Your task to perform on an android device: Open sound settings Image 0: 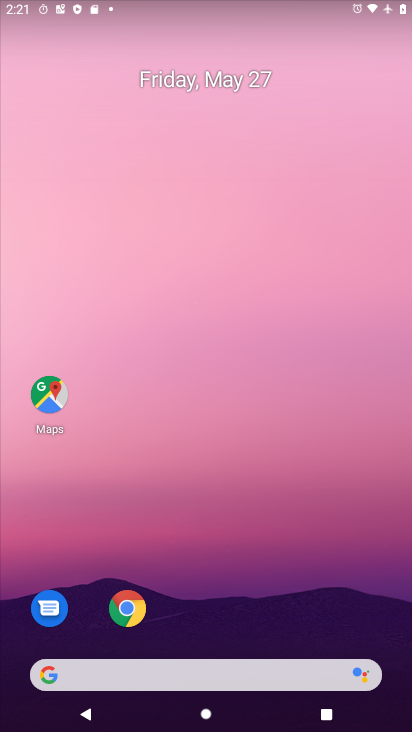
Step 0: press home button
Your task to perform on an android device: Open sound settings Image 1: 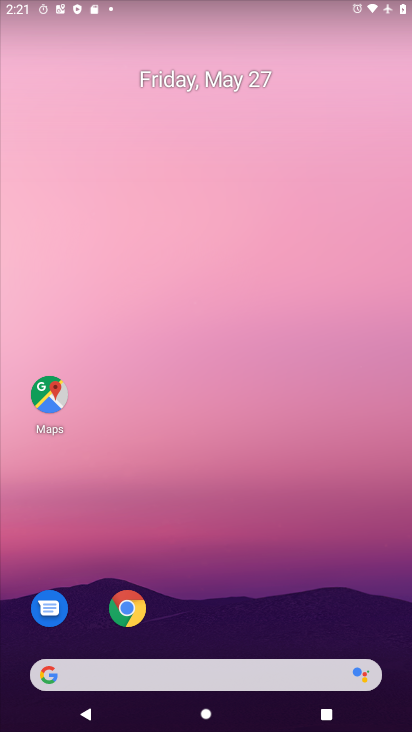
Step 1: drag from (136, 668) to (267, 162)
Your task to perform on an android device: Open sound settings Image 2: 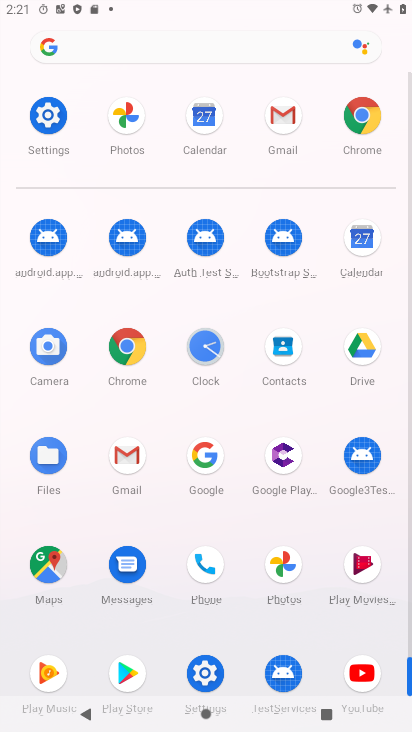
Step 2: click (211, 668)
Your task to perform on an android device: Open sound settings Image 3: 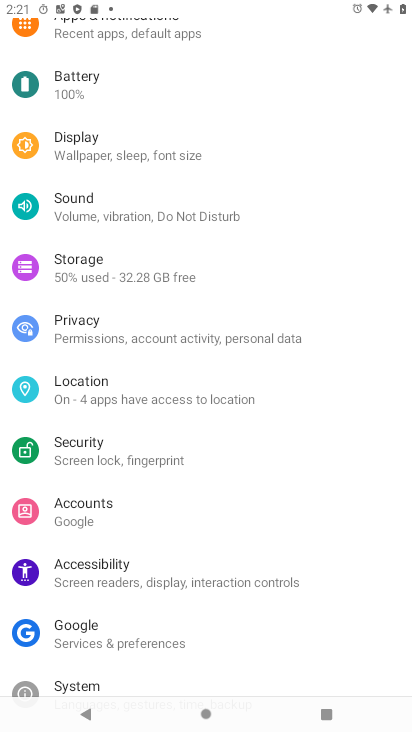
Step 3: click (120, 214)
Your task to perform on an android device: Open sound settings Image 4: 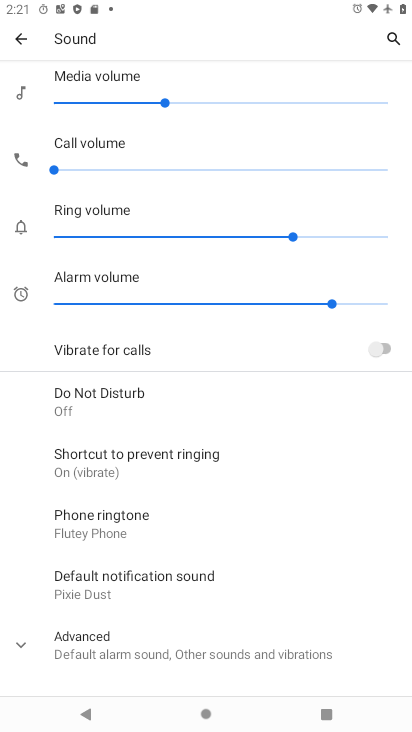
Step 4: task complete